Your task to perform on an android device: toggle show notifications on the lock screen Image 0: 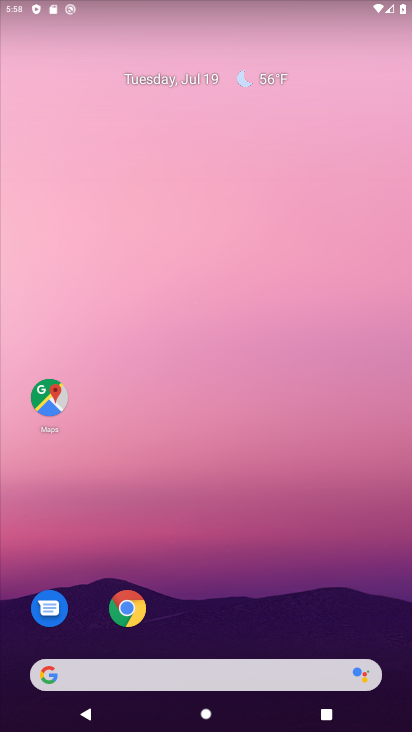
Step 0: press home button
Your task to perform on an android device: toggle show notifications on the lock screen Image 1: 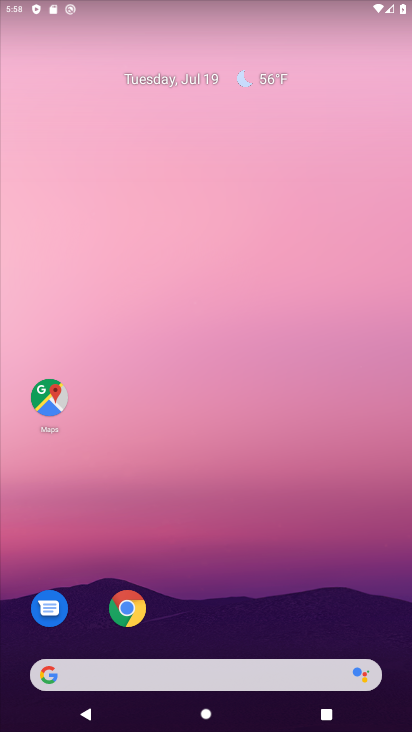
Step 1: drag from (213, 638) to (236, 58)
Your task to perform on an android device: toggle show notifications on the lock screen Image 2: 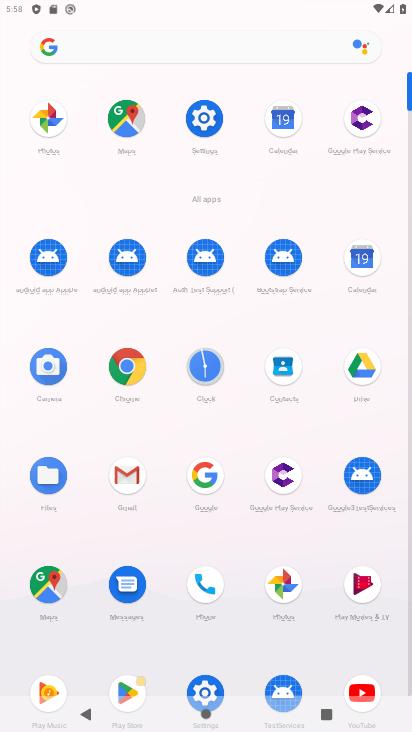
Step 2: click (200, 113)
Your task to perform on an android device: toggle show notifications on the lock screen Image 3: 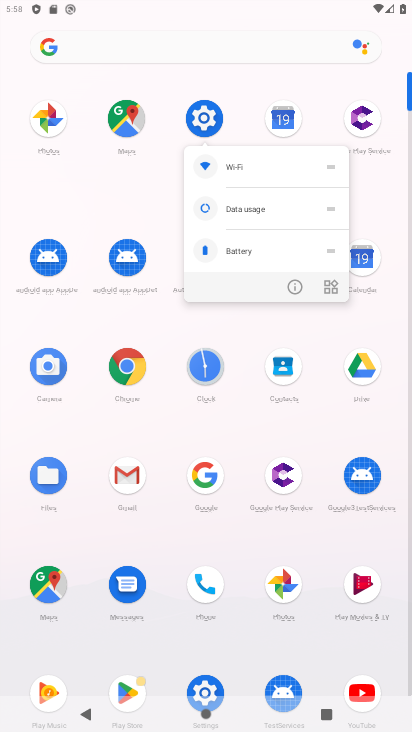
Step 3: click (204, 112)
Your task to perform on an android device: toggle show notifications on the lock screen Image 4: 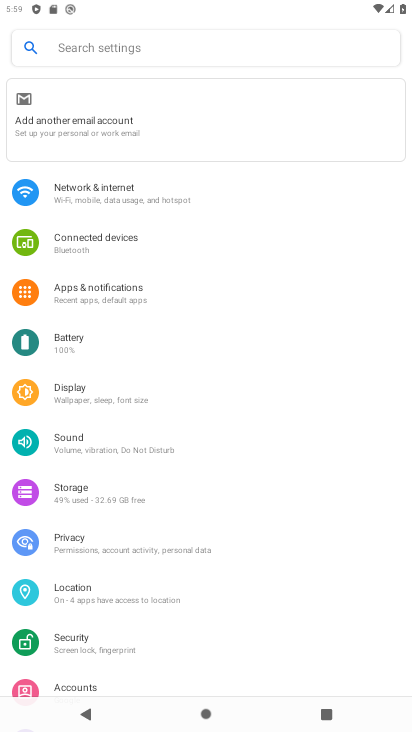
Step 4: click (155, 289)
Your task to perform on an android device: toggle show notifications on the lock screen Image 5: 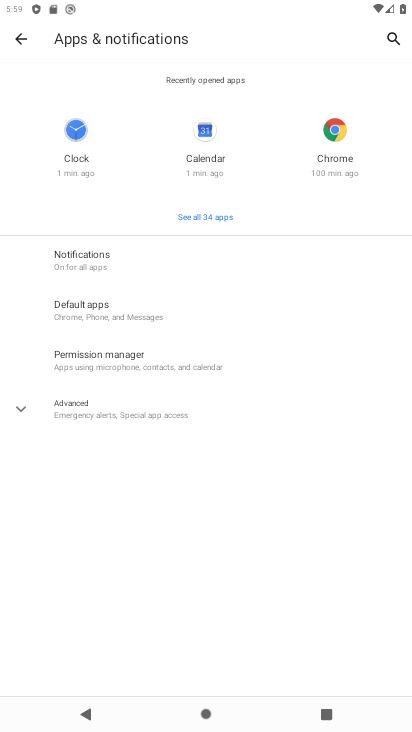
Step 5: click (125, 259)
Your task to perform on an android device: toggle show notifications on the lock screen Image 6: 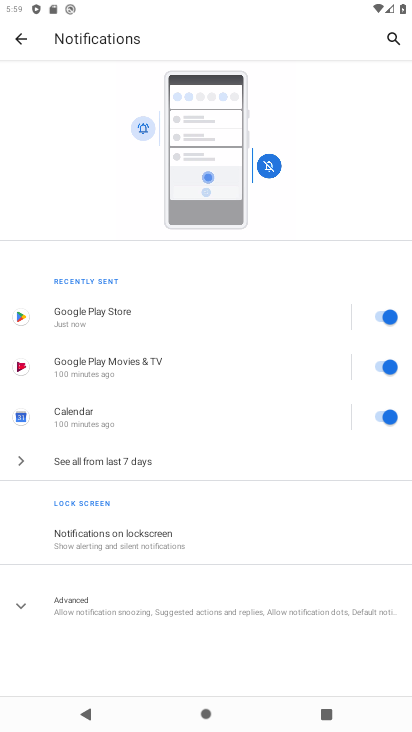
Step 6: click (193, 536)
Your task to perform on an android device: toggle show notifications on the lock screen Image 7: 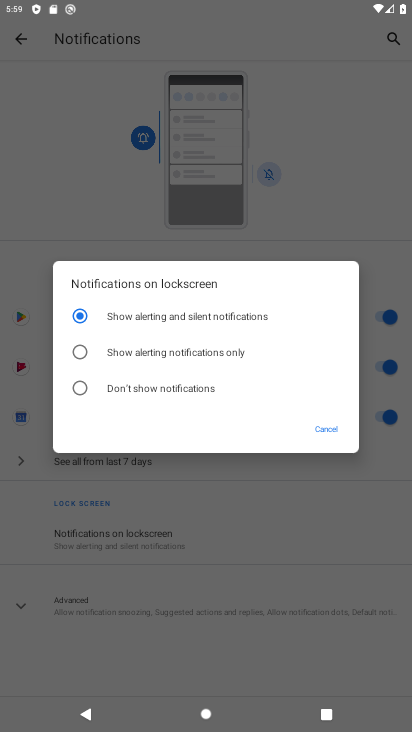
Step 7: click (84, 350)
Your task to perform on an android device: toggle show notifications on the lock screen Image 8: 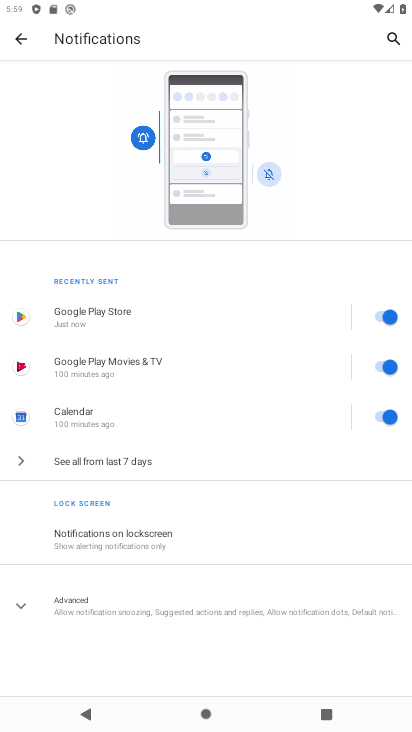
Step 8: task complete